Your task to perform on an android device: Open calendar and show me the fourth week of next month Image 0: 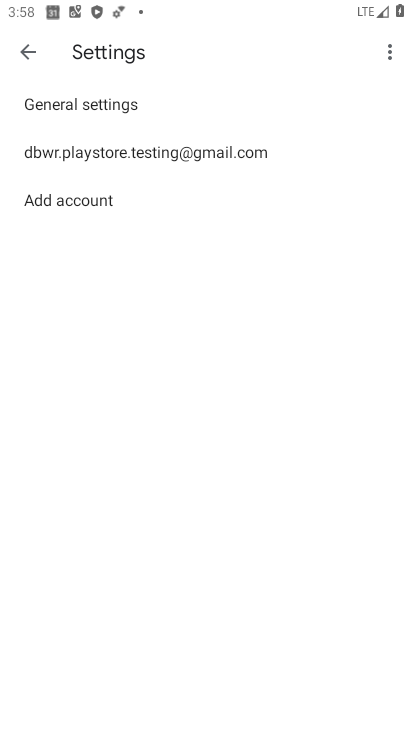
Step 0: press home button
Your task to perform on an android device: Open calendar and show me the fourth week of next month Image 1: 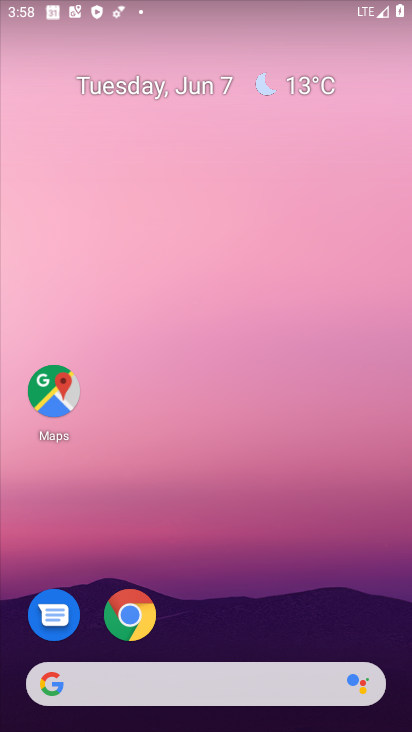
Step 1: drag from (195, 714) to (184, 153)
Your task to perform on an android device: Open calendar and show me the fourth week of next month Image 2: 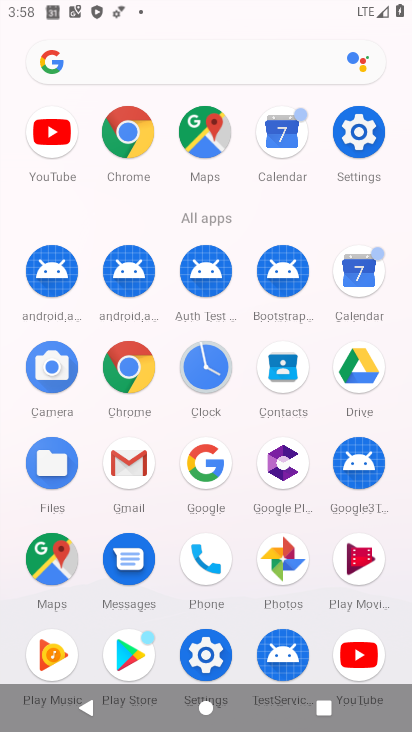
Step 2: click (358, 277)
Your task to perform on an android device: Open calendar and show me the fourth week of next month Image 3: 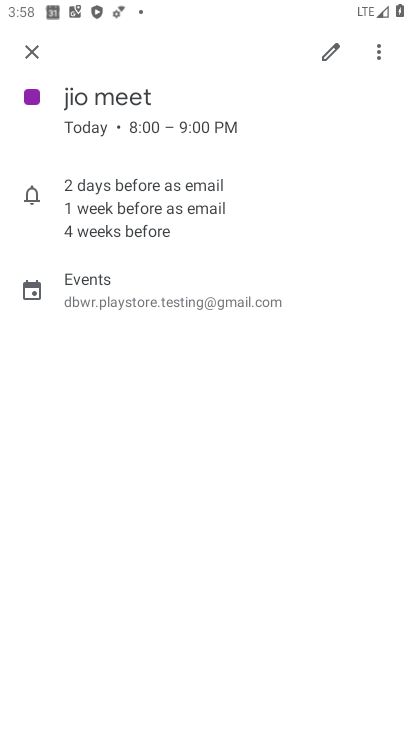
Step 3: click (33, 50)
Your task to perform on an android device: Open calendar and show me the fourth week of next month Image 4: 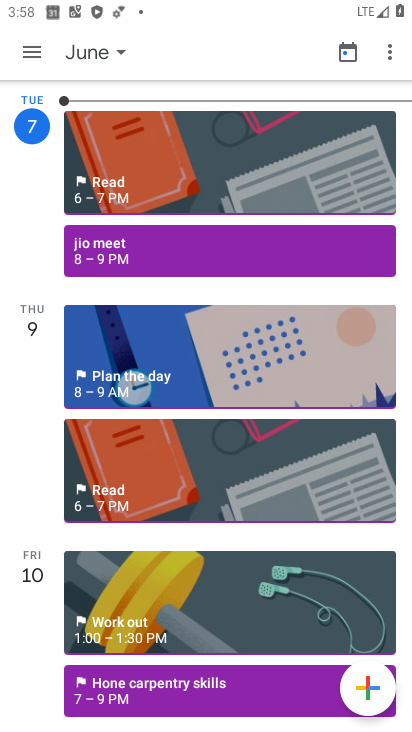
Step 4: click (121, 51)
Your task to perform on an android device: Open calendar and show me the fourth week of next month Image 5: 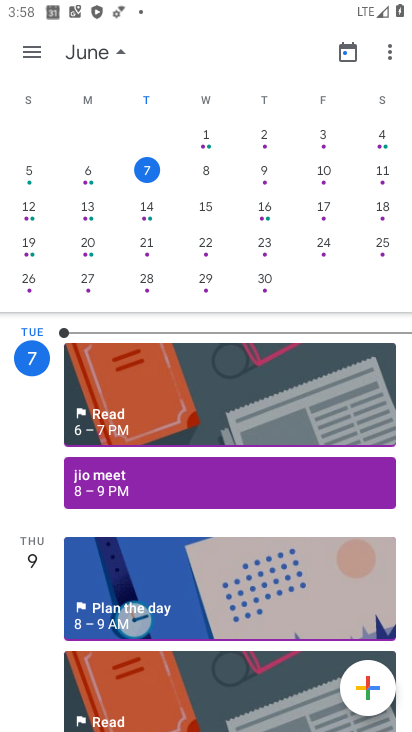
Step 5: drag from (297, 182) to (1, 180)
Your task to perform on an android device: Open calendar and show me the fourth week of next month Image 6: 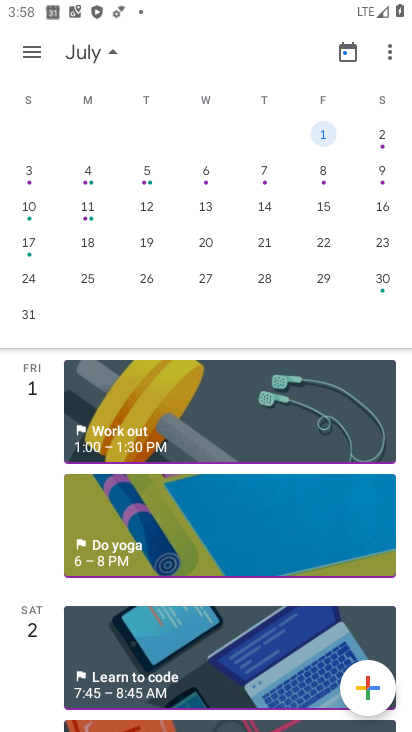
Step 6: click (89, 272)
Your task to perform on an android device: Open calendar and show me the fourth week of next month Image 7: 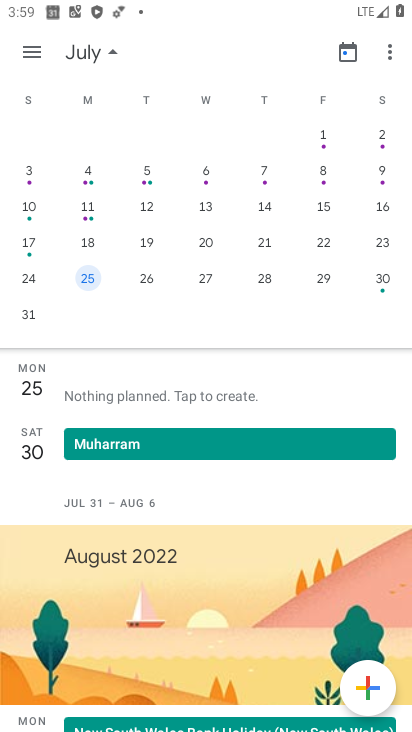
Step 7: click (32, 49)
Your task to perform on an android device: Open calendar and show me the fourth week of next month Image 8: 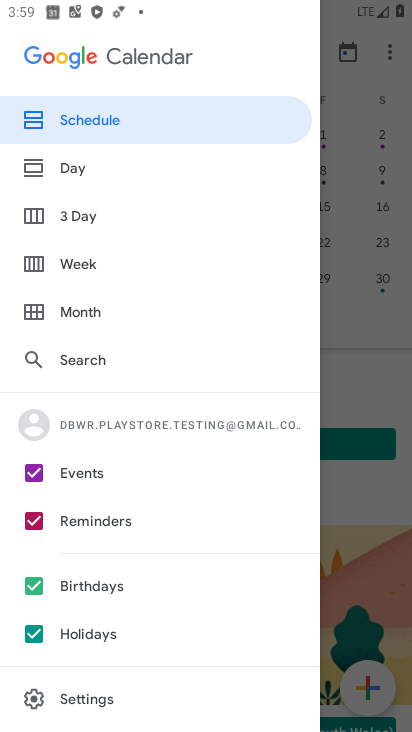
Step 8: click (75, 263)
Your task to perform on an android device: Open calendar and show me the fourth week of next month Image 9: 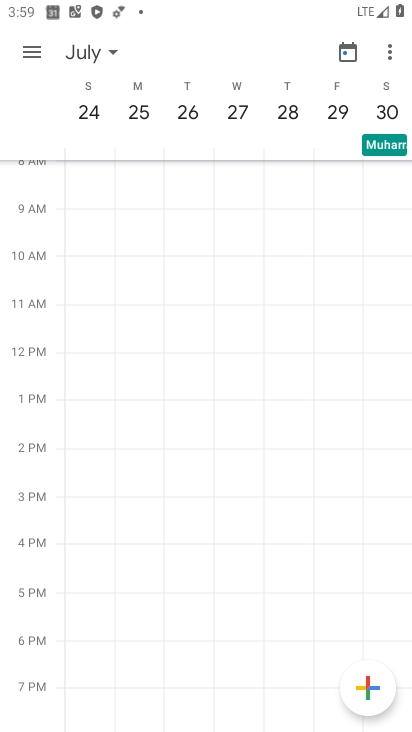
Step 9: task complete